Your task to perform on an android device: Open Maps and search for coffee Image 0: 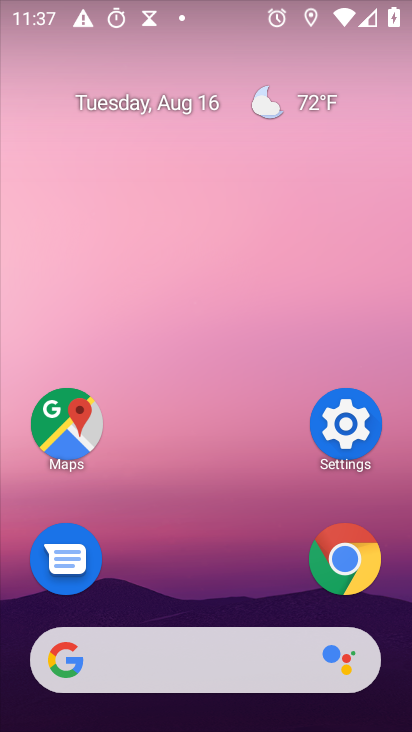
Step 0: click (35, 433)
Your task to perform on an android device: Open Maps and search for coffee Image 1: 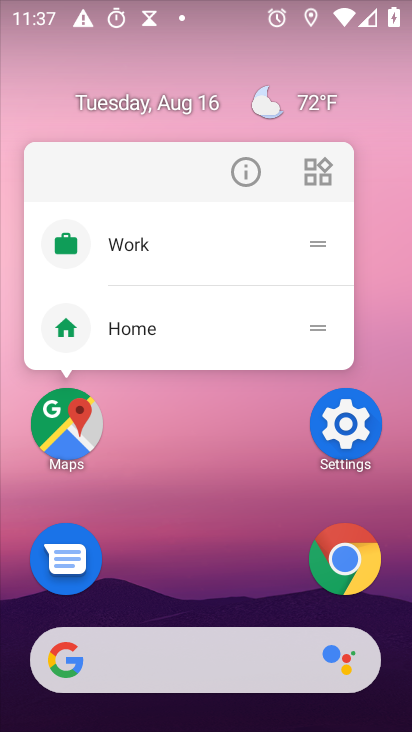
Step 1: click (68, 423)
Your task to perform on an android device: Open Maps and search for coffee Image 2: 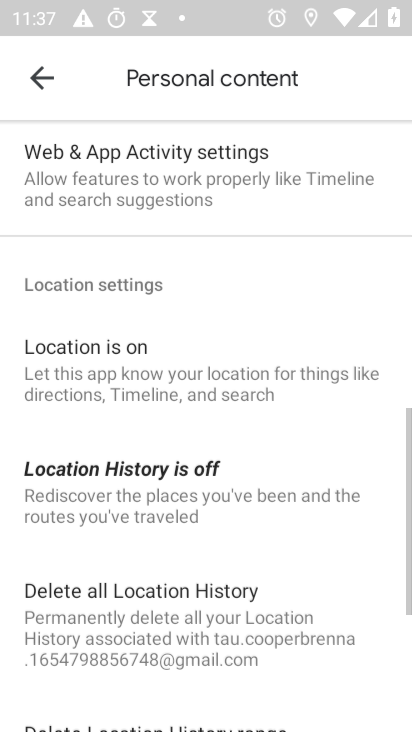
Step 2: press back button
Your task to perform on an android device: Open Maps and search for coffee Image 3: 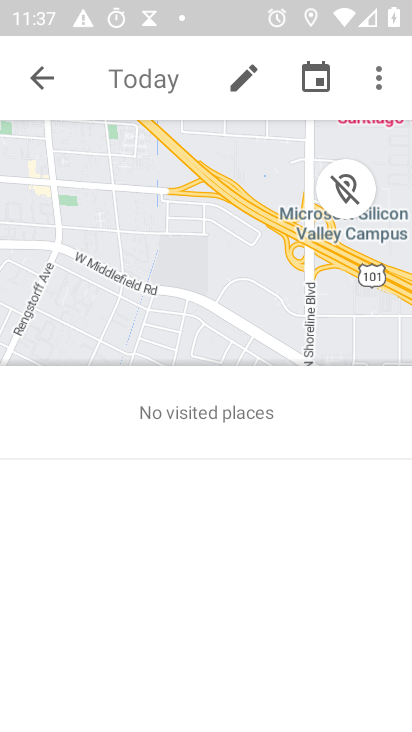
Step 3: press back button
Your task to perform on an android device: Open Maps and search for coffee Image 4: 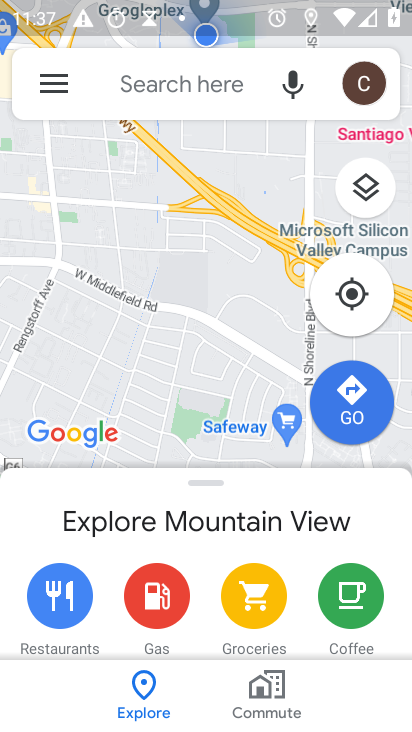
Step 4: click (178, 82)
Your task to perform on an android device: Open Maps and search for coffee Image 5: 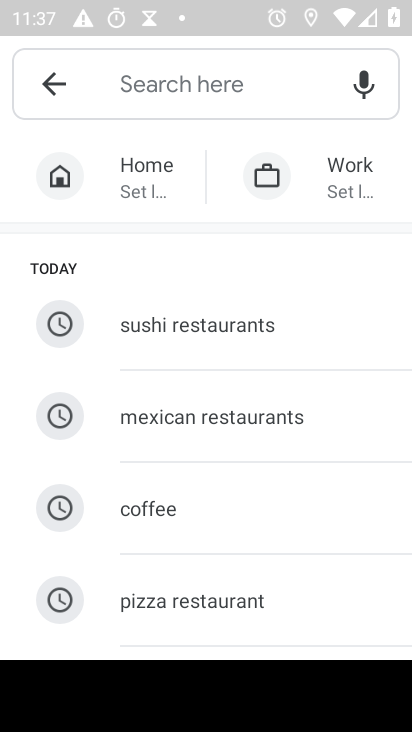
Step 5: click (163, 513)
Your task to perform on an android device: Open Maps and search for coffee Image 6: 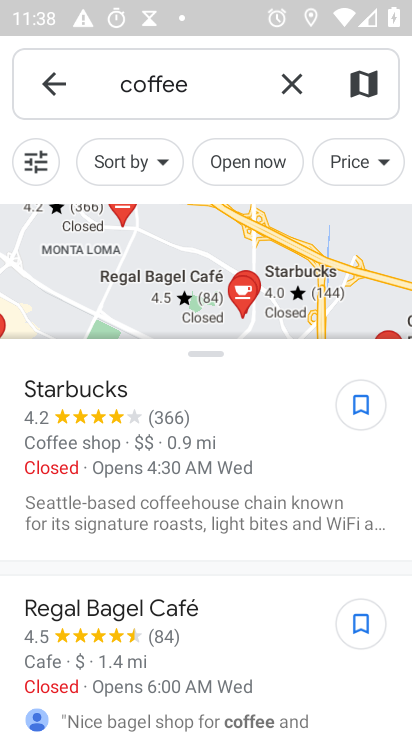
Step 6: task complete